Your task to perform on an android device: Search for Italian restaurants on Maps Image 0: 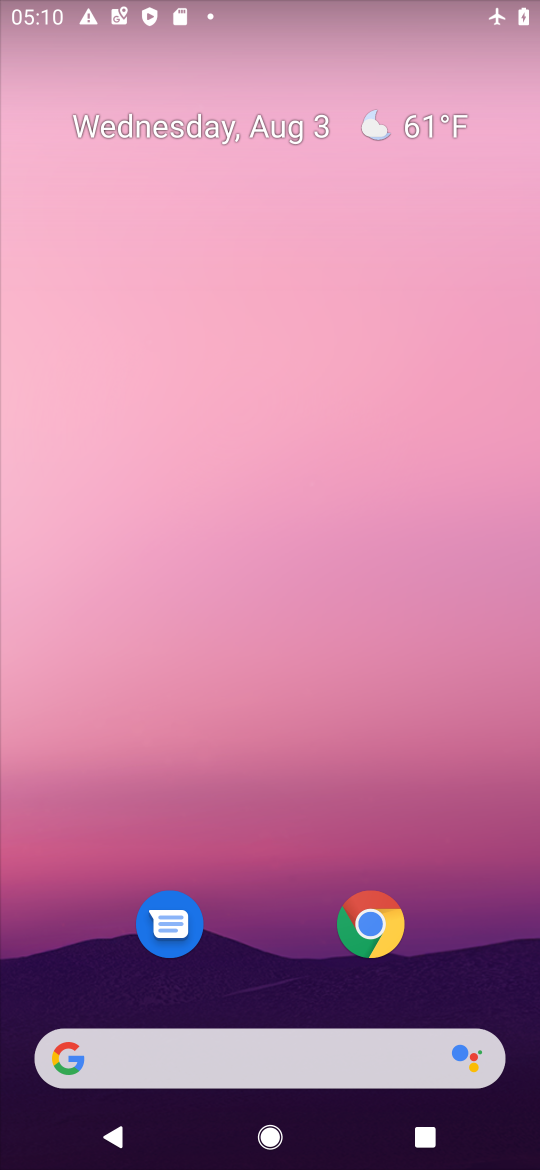
Step 0: drag from (277, 817) to (238, 364)
Your task to perform on an android device: Search for Italian restaurants on Maps Image 1: 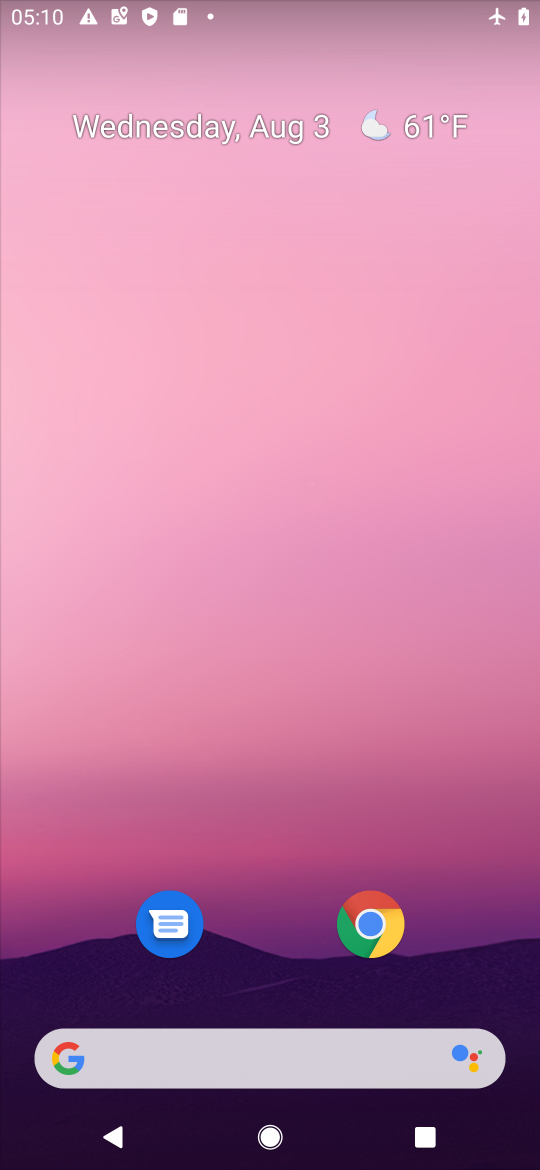
Step 1: drag from (290, 885) to (301, 218)
Your task to perform on an android device: Search for Italian restaurants on Maps Image 2: 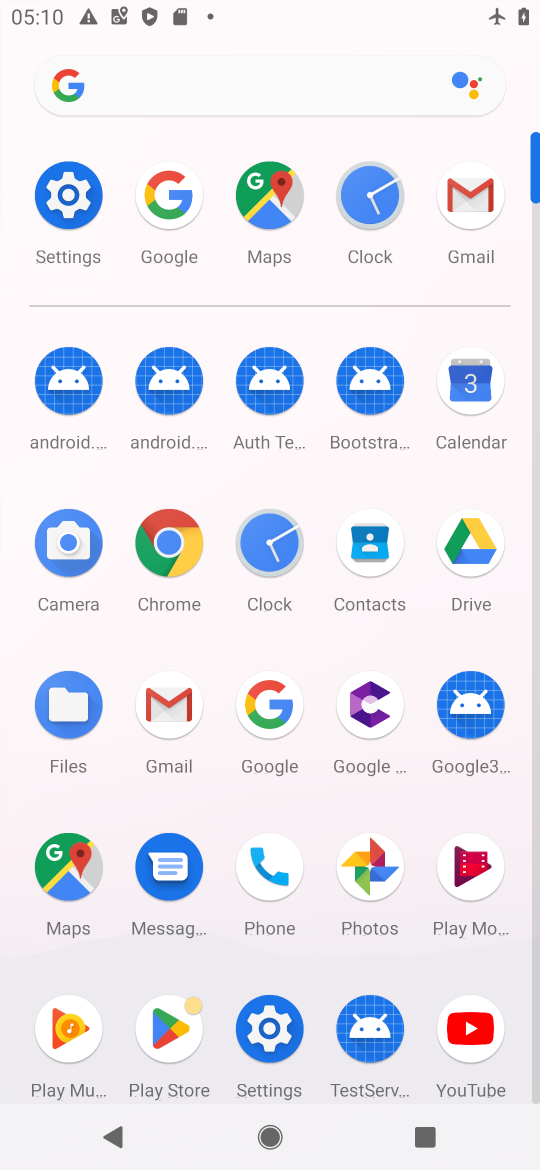
Step 2: click (257, 215)
Your task to perform on an android device: Search for Italian restaurants on Maps Image 3: 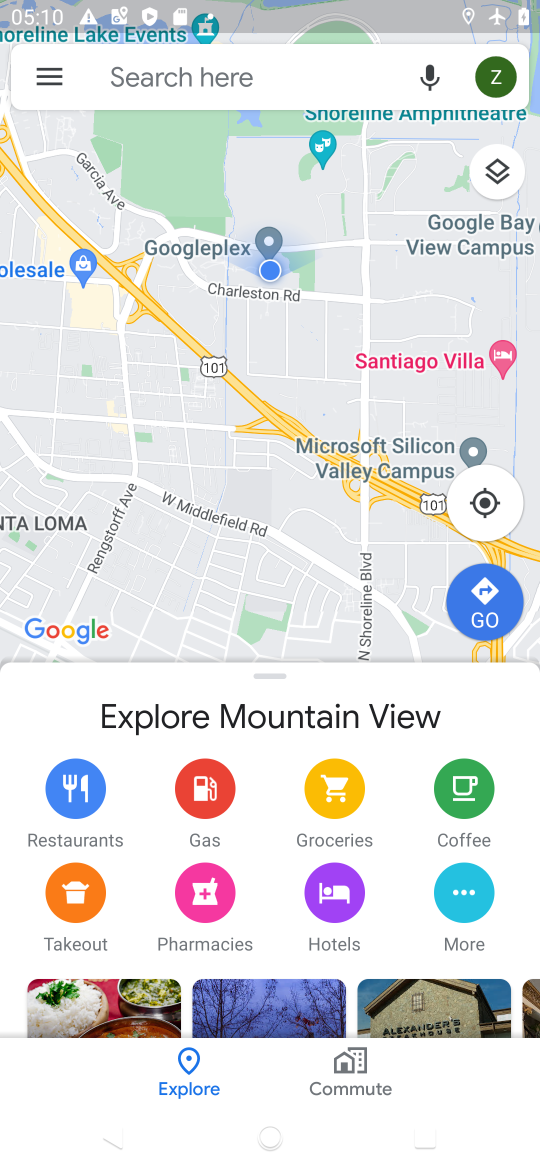
Step 3: click (280, 76)
Your task to perform on an android device: Search for Italian restaurants on Maps Image 4: 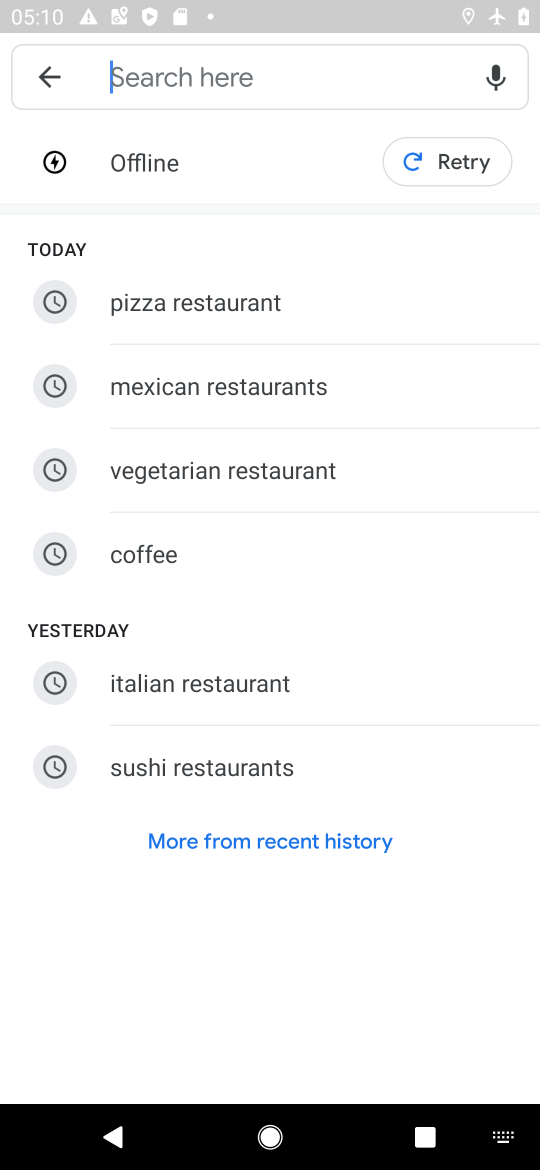
Step 4: click (215, 681)
Your task to perform on an android device: Search for Italian restaurants on Maps Image 5: 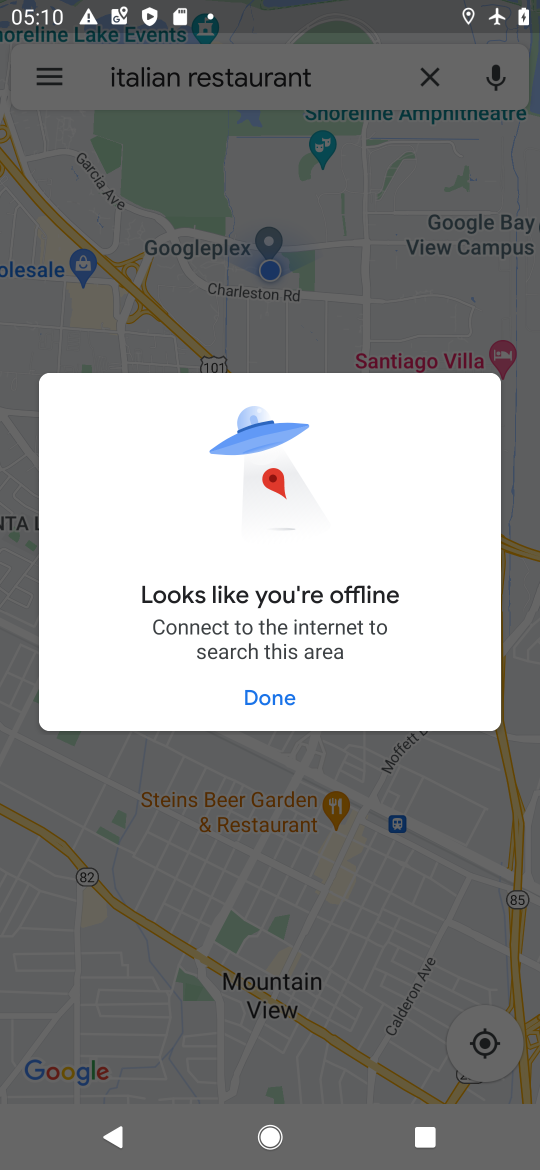
Step 5: task complete